Your task to perform on an android device: all mails in gmail Image 0: 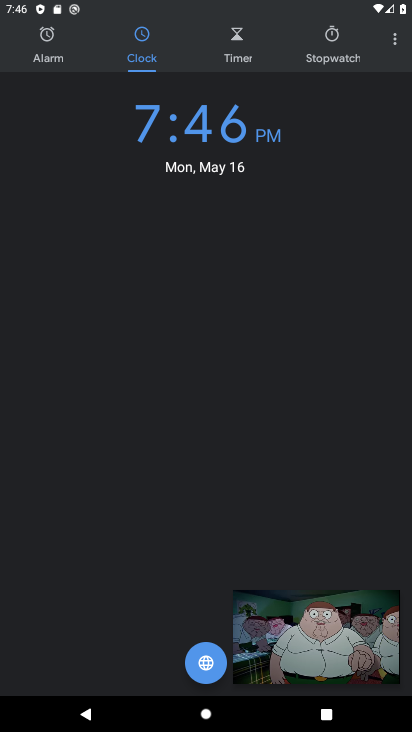
Step 0: click (374, 611)
Your task to perform on an android device: all mails in gmail Image 1: 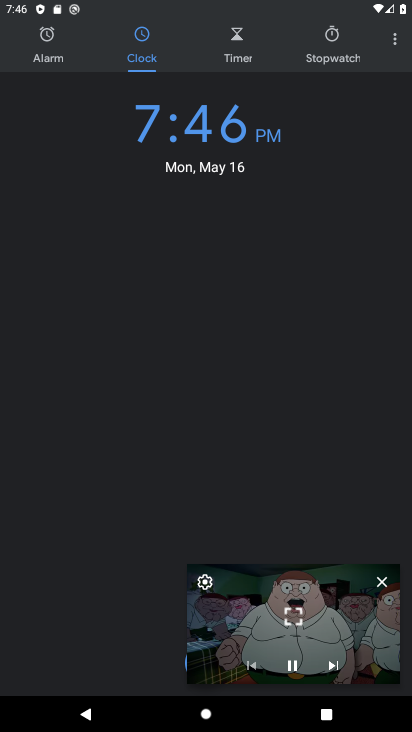
Step 1: click (382, 582)
Your task to perform on an android device: all mails in gmail Image 2: 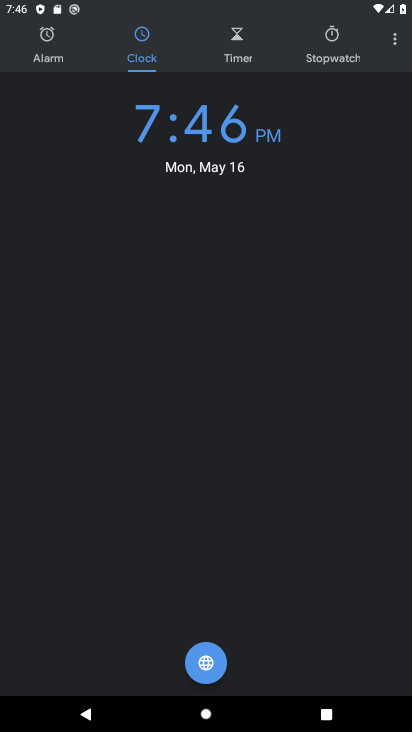
Step 2: press back button
Your task to perform on an android device: all mails in gmail Image 3: 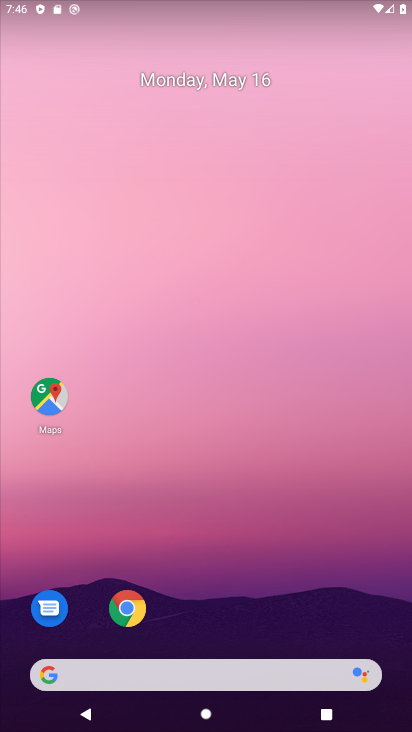
Step 3: drag from (251, 592) to (204, 249)
Your task to perform on an android device: all mails in gmail Image 4: 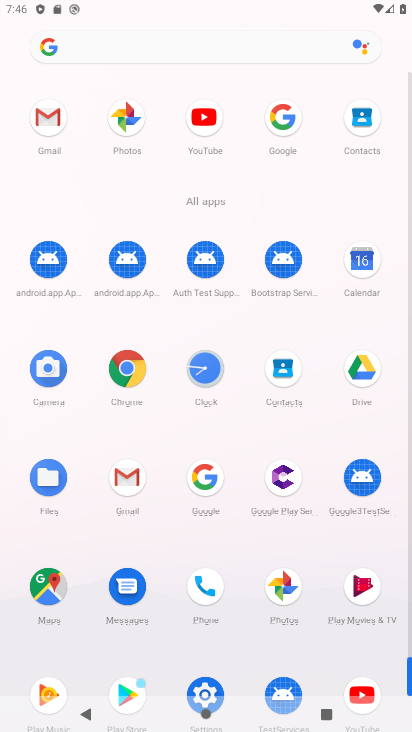
Step 4: click (45, 117)
Your task to perform on an android device: all mails in gmail Image 5: 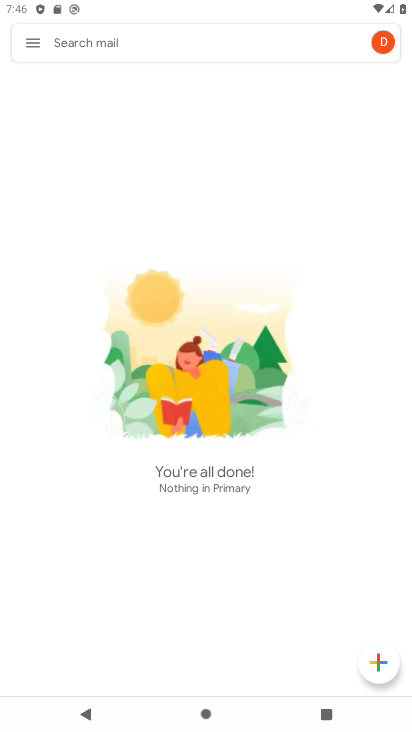
Step 5: click (28, 49)
Your task to perform on an android device: all mails in gmail Image 6: 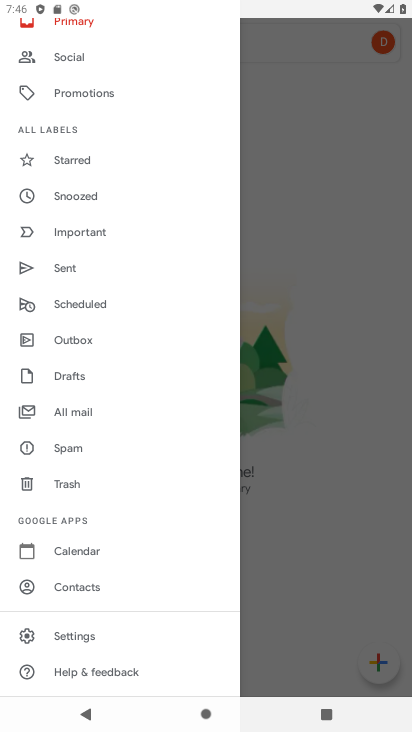
Step 6: click (59, 404)
Your task to perform on an android device: all mails in gmail Image 7: 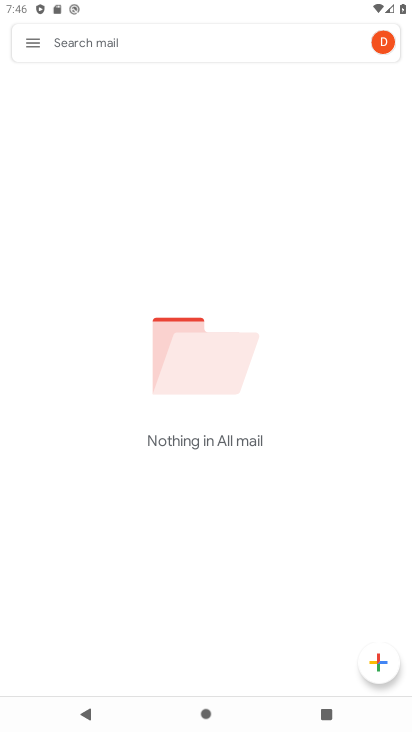
Step 7: task complete